Your task to perform on an android device: find which apps use the phone's location Image 0: 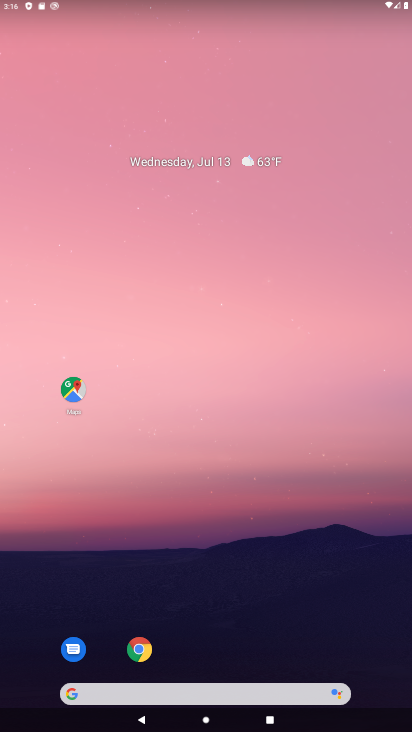
Step 0: drag from (286, 601) to (313, 138)
Your task to perform on an android device: find which apps use the phone's location Image 1: 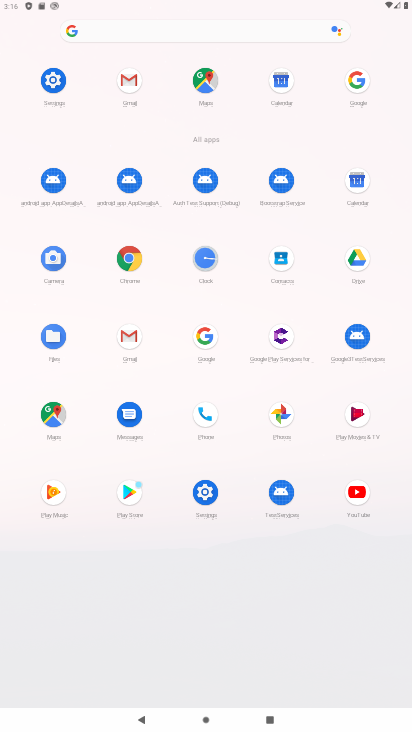
Step 1: click (51, 80)
Your task to perform on an android device: find which apps use the phone's location Image 2: 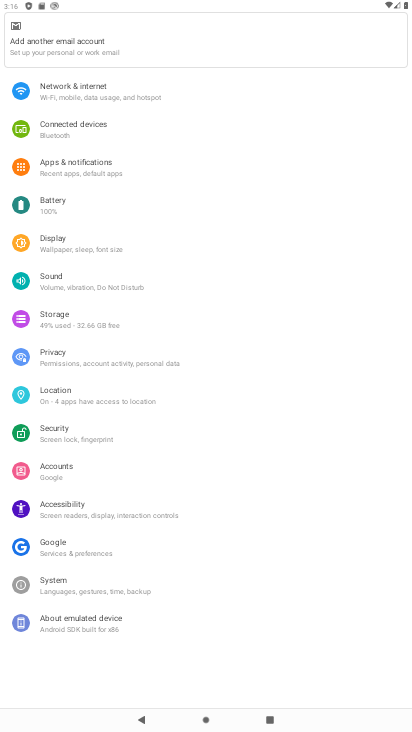
Step 2: click (67, 389)
Your task to perform on an android device: find which apps use the phone's location Image 3: 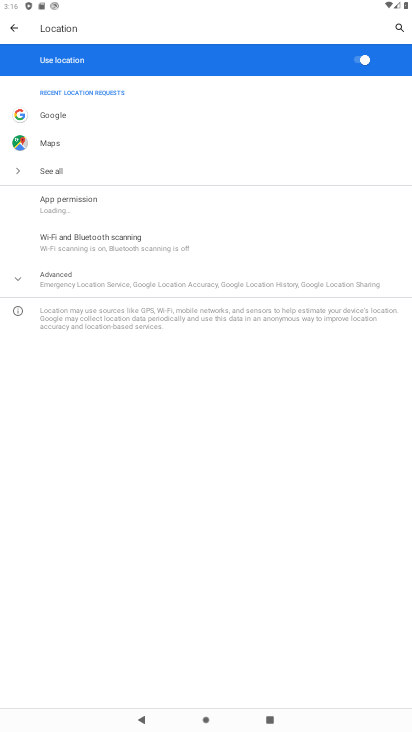
Step 3: click (191, 198)
Your task to perform on an android device: find which apps use the phone's location Image 4: 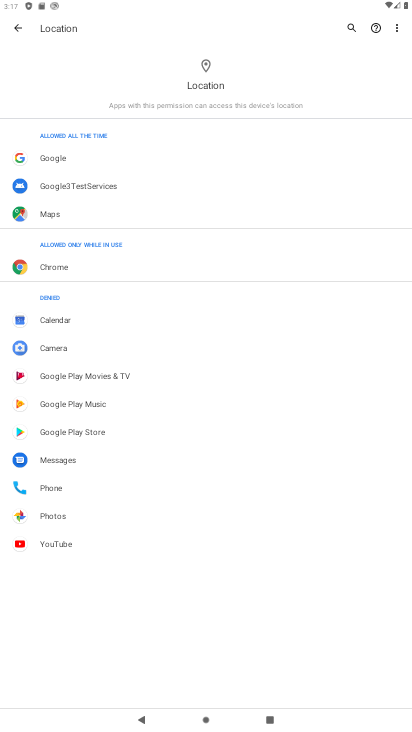
Step 4: task complete